Your task to perform on an android device: delete location history Image 0: 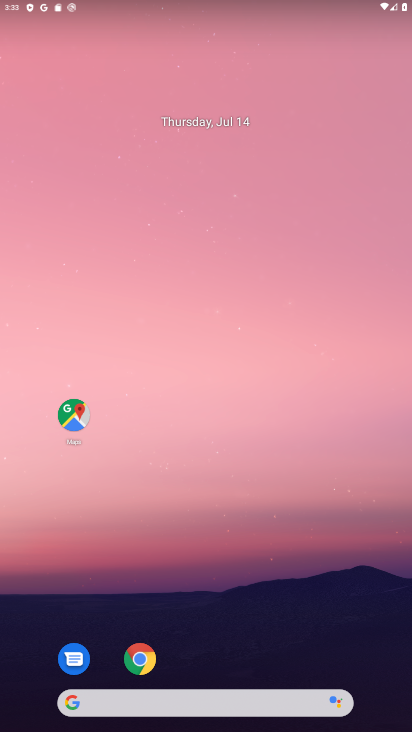
Step 0: drag from (344, 614) to (342, 105)
Your task to perform on an android device: delete location history Image 1: 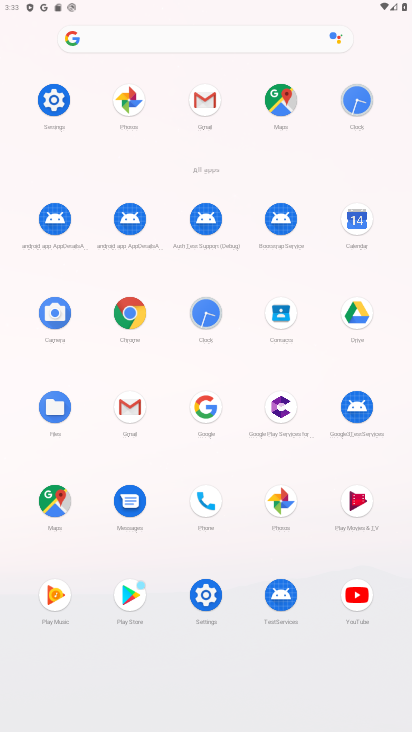
Step 1: click (286, 106)
Your task to perform on an android device: delete location history Image 2: 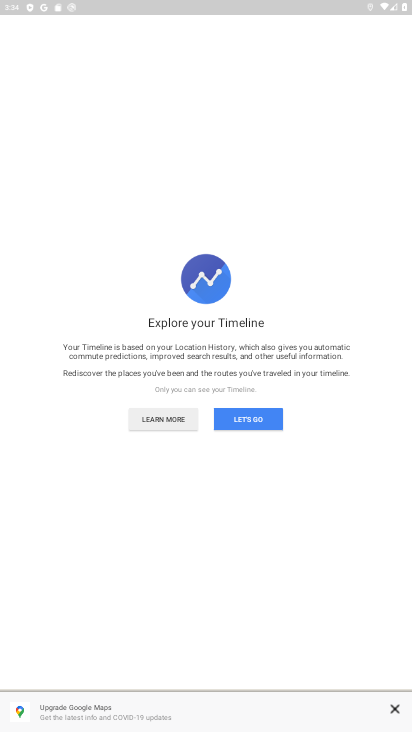
Step 2: click (263, 421)
Your task to perform on an android device: delete location history Image 3: 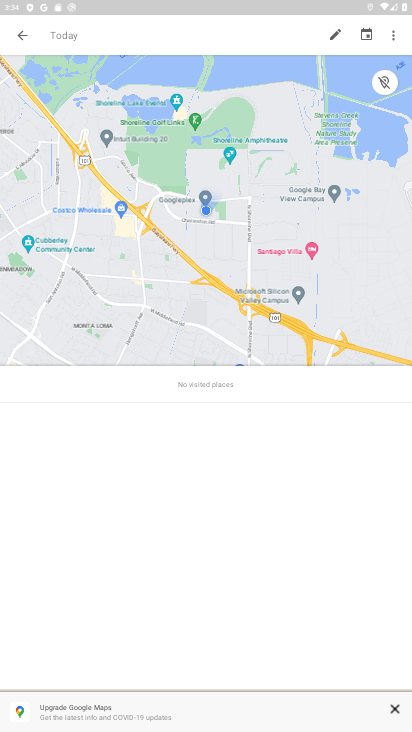
Step 3: click (393, 40)
Your task to perform on an android device: delete location history Image 4: 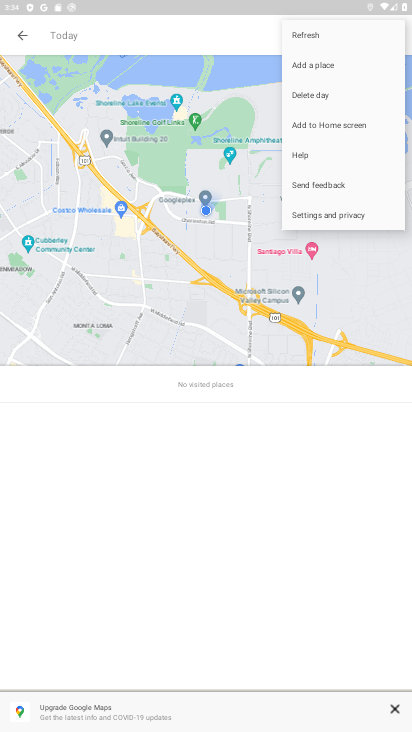
Step 4: click (355, 215)
Your task to perform on an android device: delete location history Image 5: 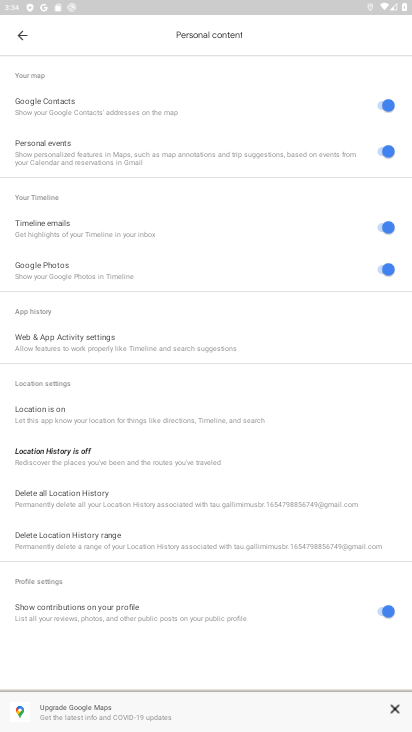
Step 5: click (265, 502)
Your task to perform on an android device: delete location history Image 6: 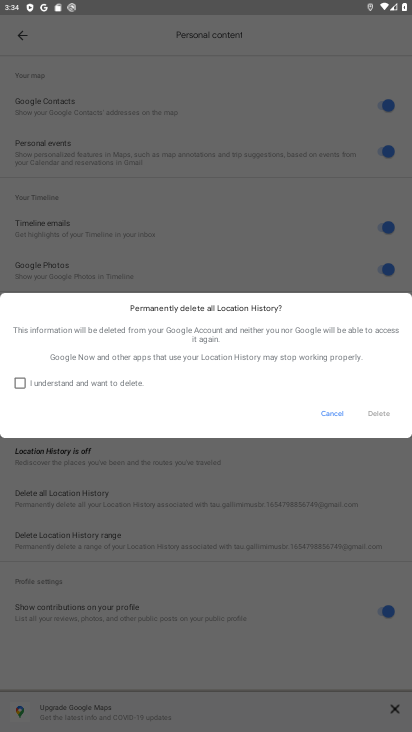
Step 6: click (26, 378)
Your task to perform on an android device: delete location history Image 7: 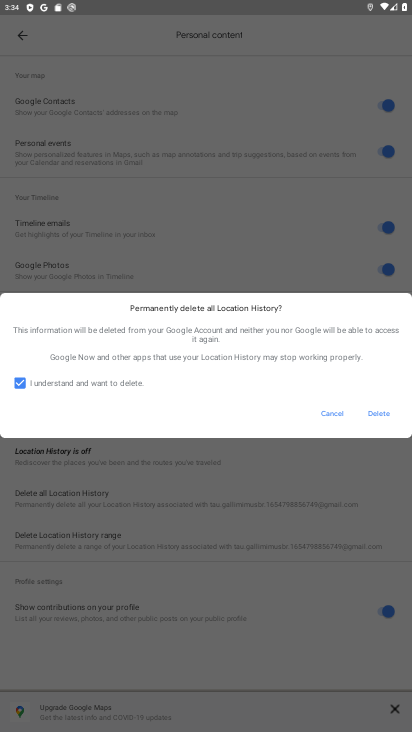
Step 7: click (384, 413)
Your task to perform on an android device: delete location history Image 8: 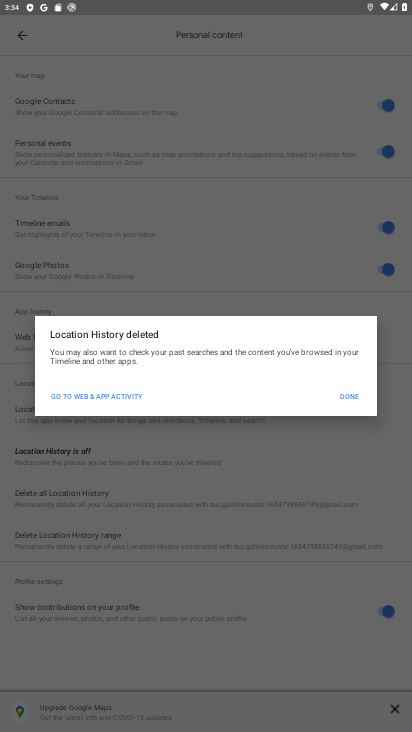
Step 8: task complete